Your task to perform on an android device: toggle notification dots Image 0: 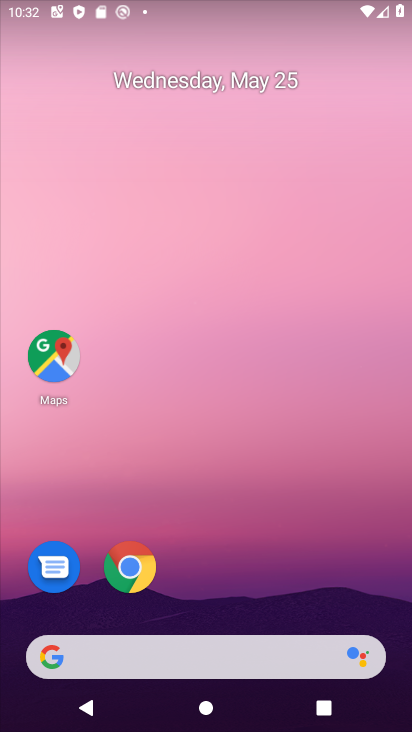
Step 0: drag from (296, 685) to (255, 5)
Your task to perform on an android device: toggle notification dots Image 1: 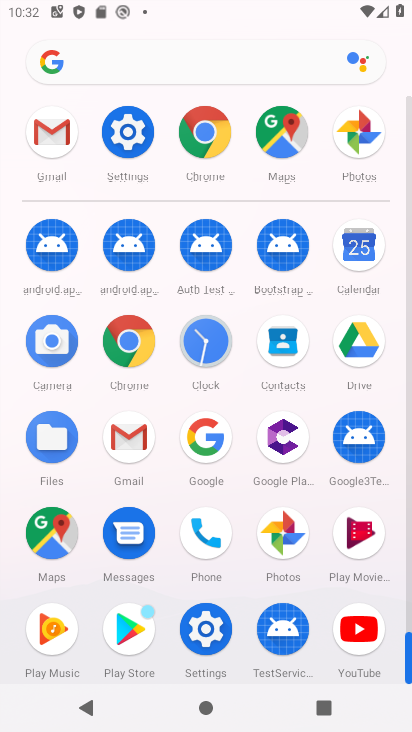
Step 1: click (218, 638)
Your task to perform on an android device: toggle notification dots Image 2: 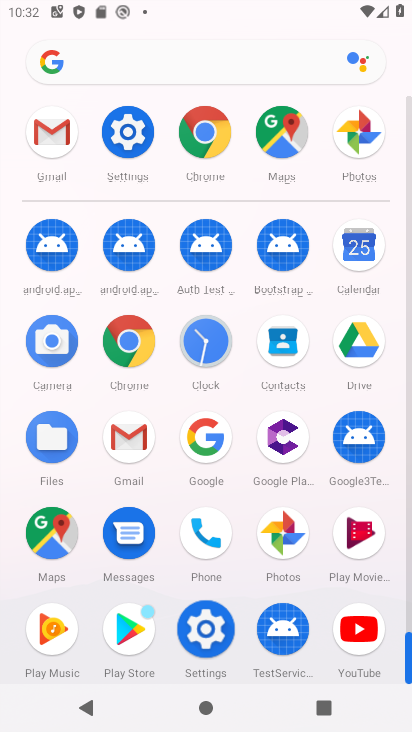
Step 2: click (217, 637)
Your task to perform on an android device: toggle notification dots Image 3: 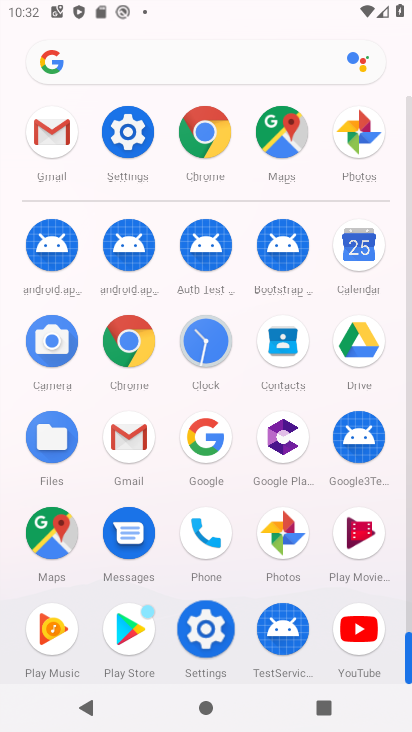
Step 3: click (219, 635)
Your task to perform on an android device: toggle notification dots Image 4: 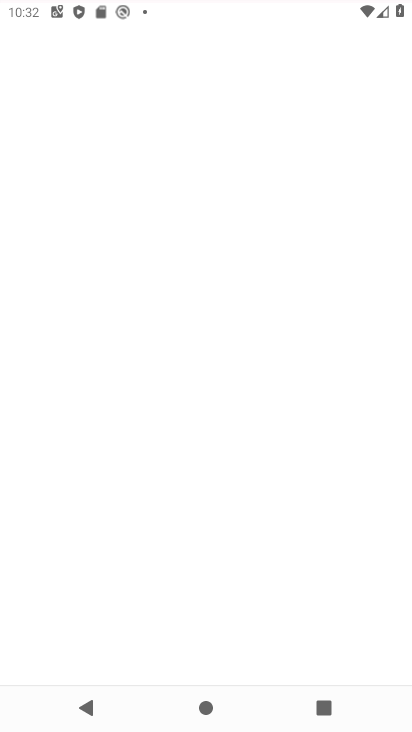
Step 4: click (220, 635)
Your task to perform on an android device: toggle notification dots Image 5: 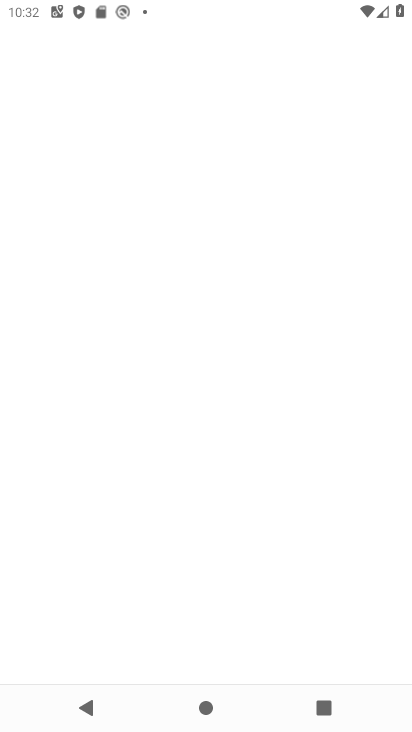
Step 5: click (220, 635)
Your task to perform on an android device: toggle notification dots Image 6: 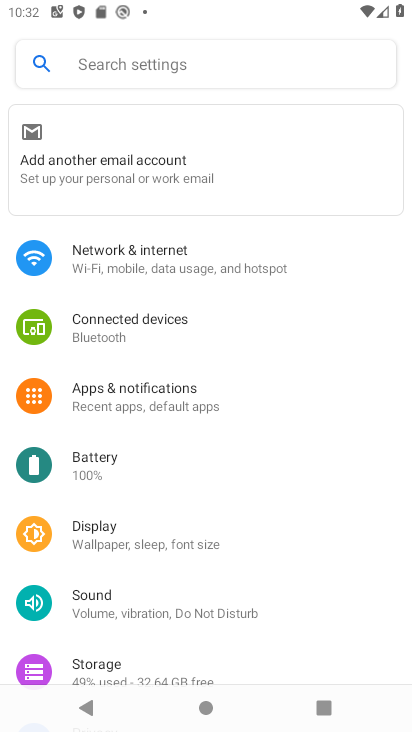
Step 6: click (169, 398)
Your task to perform on an android device: toggle notification dots Image 7: 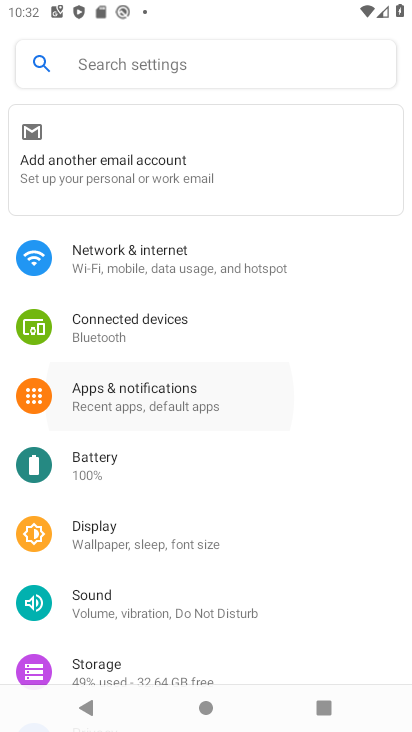
Step 7: click (171, 397)
Your task to perform on an android device: toggle notification dots Image 8: 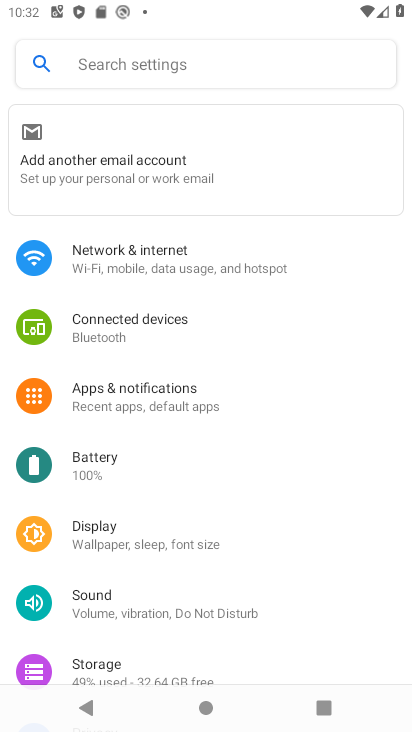
Step 8: click (171, 397)
Your task to perform on an android device: toggle notification dots Image 9: 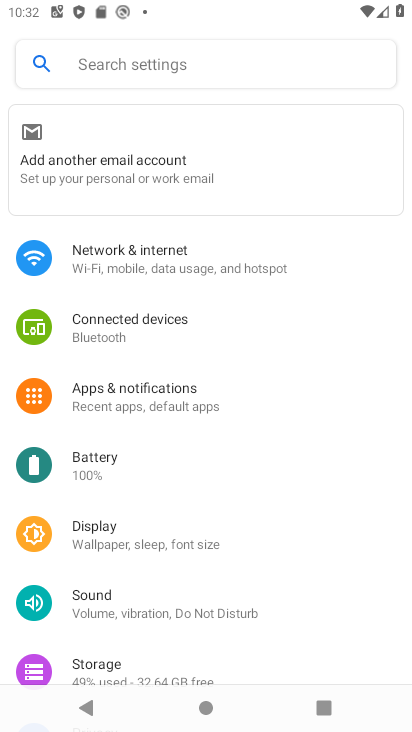
Step 9: click (171, 397)
Your task to perform on an android device: toggle notification dots Image 10: 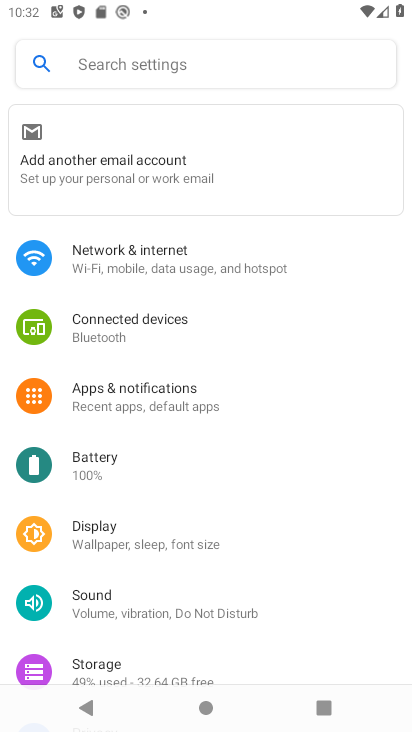
Step 10: click (171, 397)
Your task to perform on an android device: toggle notification dots Image 11: 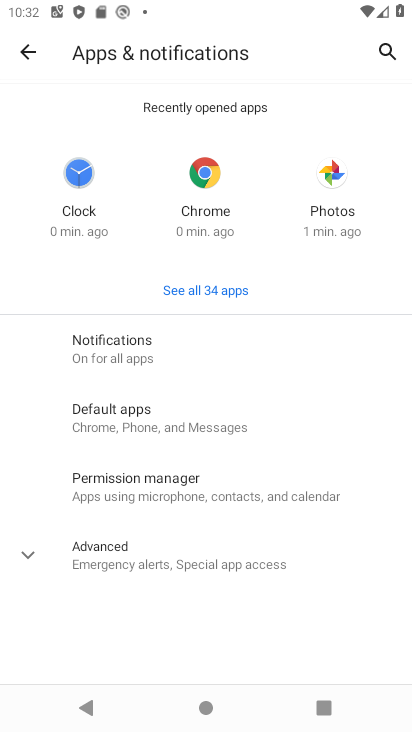
Step 11: click (121, 346)
Your task to perform on an android device: toggle notification dots Image 12: 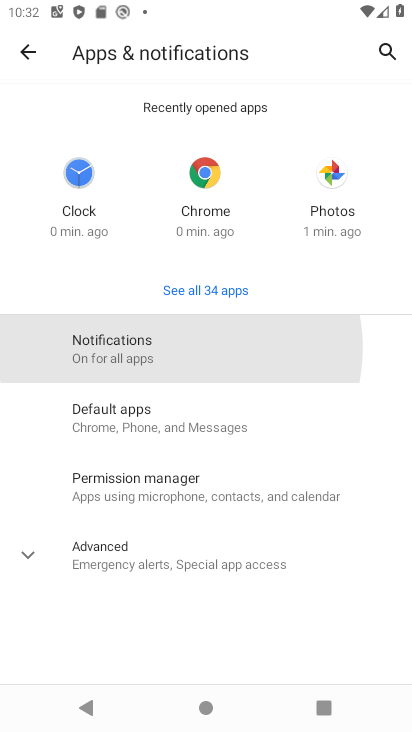
Step 12: click (120, 345)
Your task to perform on an android device: toggle notification dots Image 13: 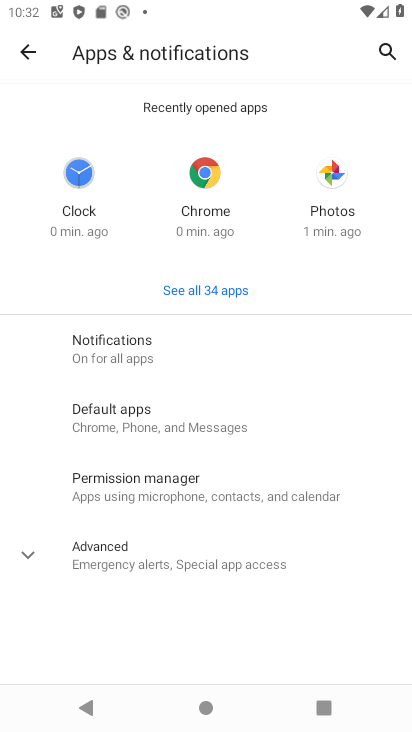
Step 13: click (122, 344)
Your task to perform on an android device: toggle notification dots Image 14: 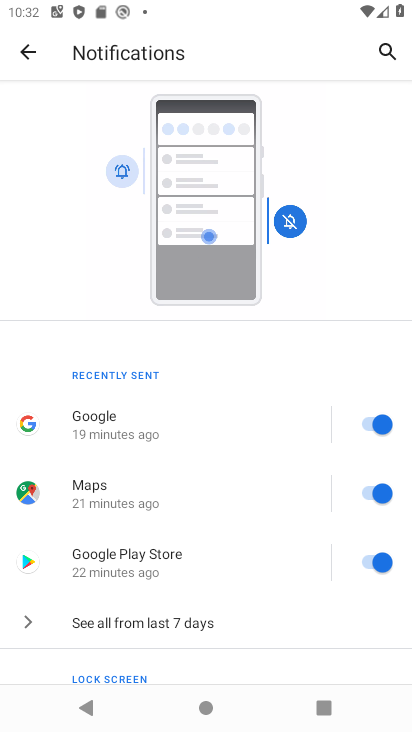
Step 14: drag from (151, 386) to (190, 137)
Your task to perform on an android device: toggle notification dots Image 15: 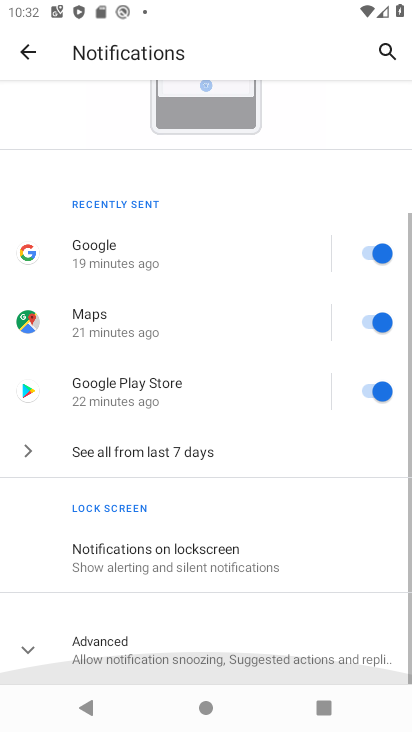
Step 15: drag from (225, 422) to (230, 158)
Your task to perform on an android device: toggle notification dots Image 16: 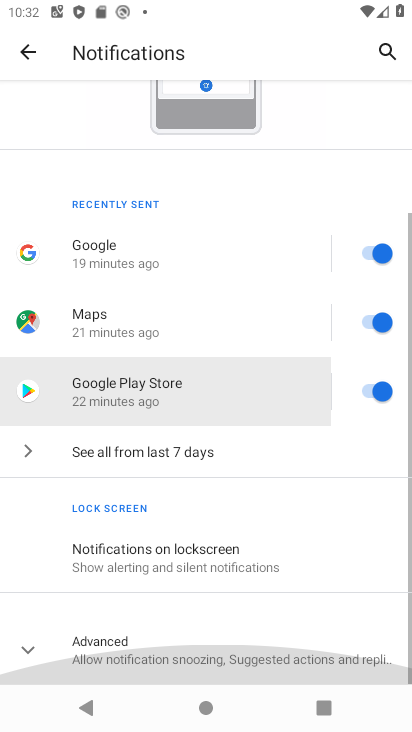
Step 16: drag from (221, 452) to (202, 253)
Your task to perform on an android device: toggle notification dots Image 17: 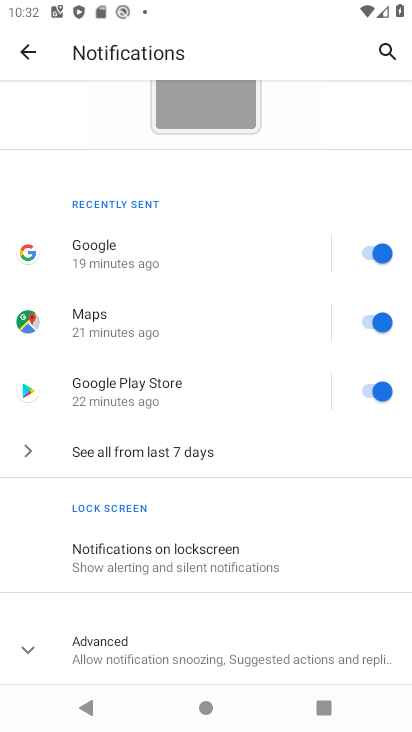
Step 17: click (113, 641)
Your task to perform on an android device: toggle notification dots Image 18: 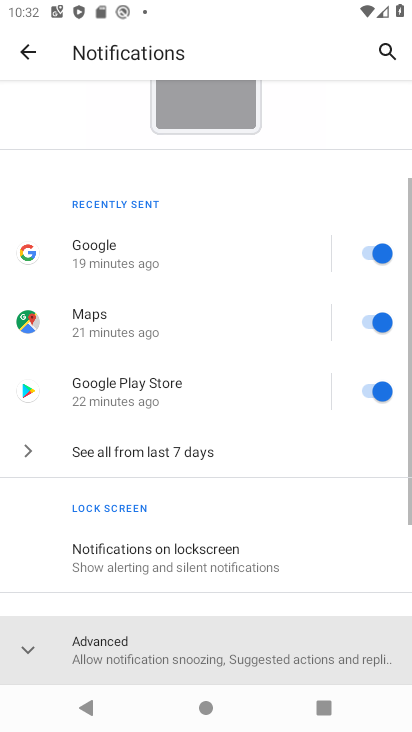
Step 18: click (111, 643)
Your task to perform on an android device: toggle notification dots Image 19: 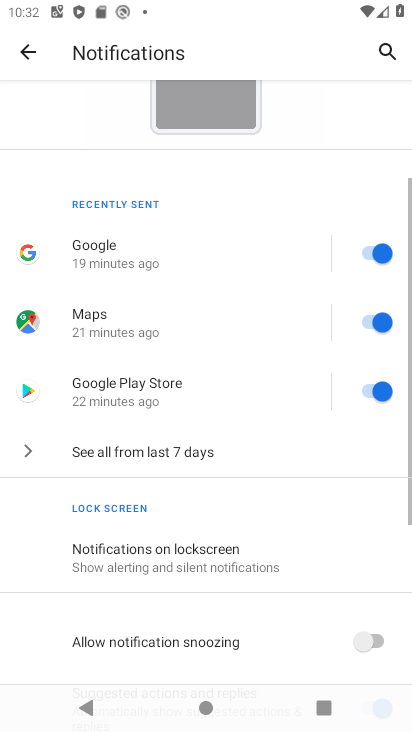
Step 19: click (111, 643)
Your task to perform on an android device: toggle notification dots Image 20: 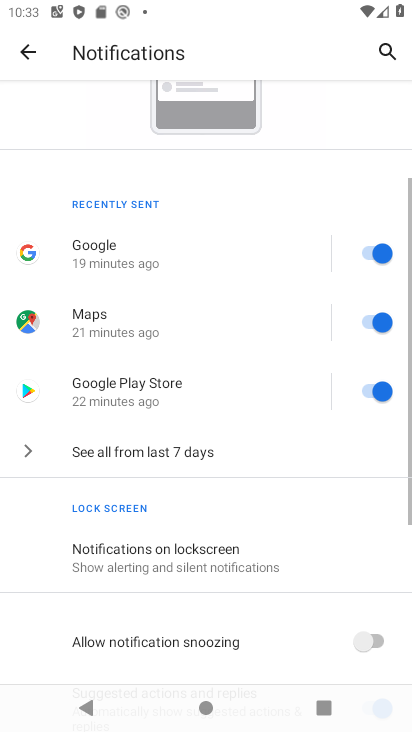
Step 20: drag from (183, 582) to (253, 244)
Your task to perform on an android device: toggle notification dots Image 21: 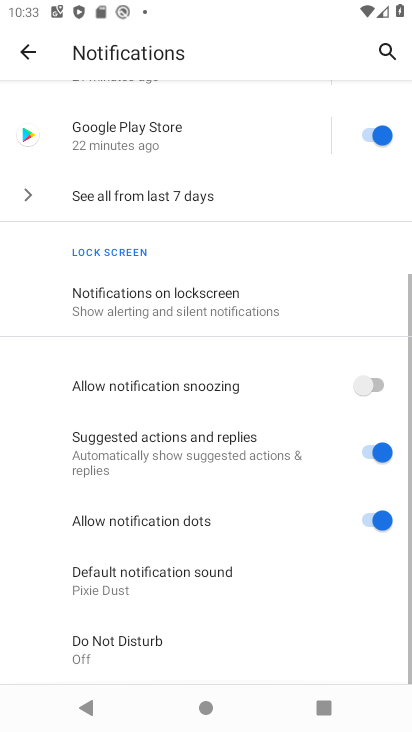
Step 21: drag from (290, 508) to (361, 226)
Your task to perform on an android device: toggle notification dots Image 22: 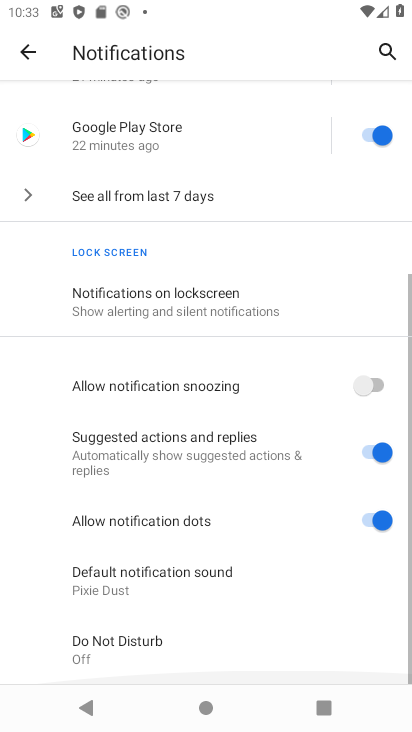
Step 22: click (280, 335)
Your task to perform on an android device: toggle notification dots Image 23: 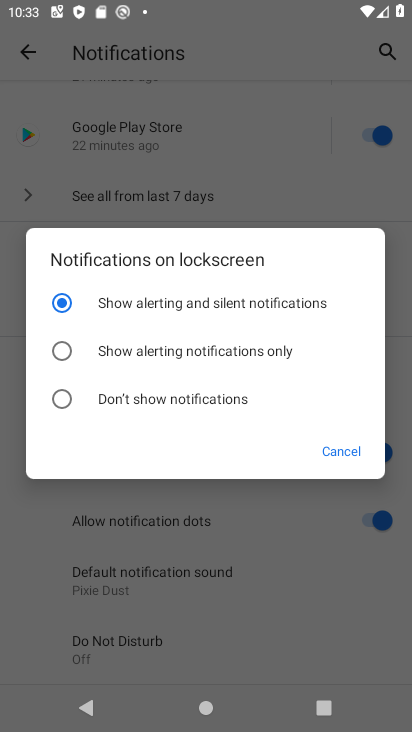
Step 23: click (359, 433)
Your task to perform on an android device: toggle notification dots Image 24: 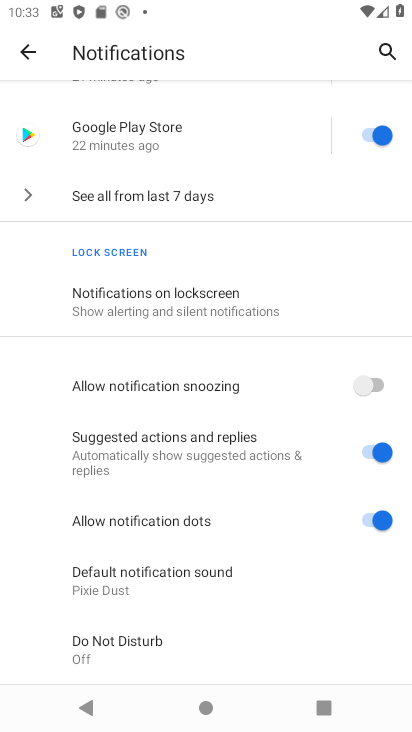
Step 24: click (387, 514)
Your task to perform on an android device: toggle notification dots Image 25: 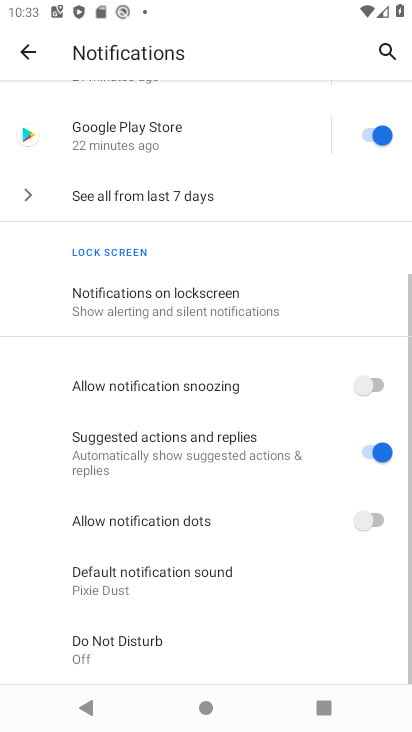
Step 25: task complete